Your task to perform on an android device: set default search engine in the chrome app Image 0: 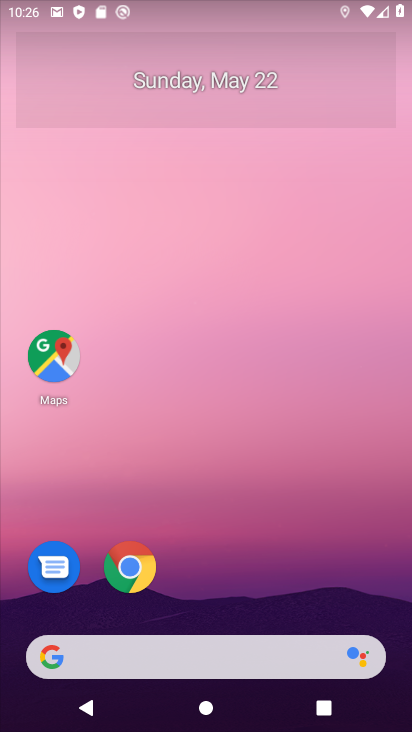
Step 0: drag from (257, 584) to (251, 163)
Your task to perform on an android device: set default search engine in the chrome app Image 1: 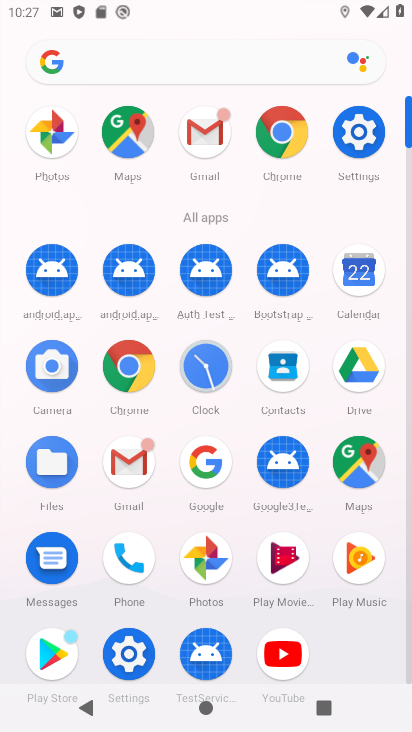
Step 1: click (131, 375)
Your task to perform on an android device: set default search engine in the chrome app Image 2: 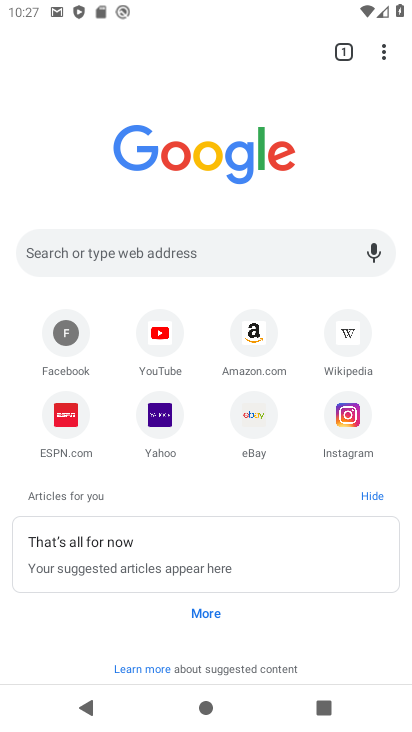
Step 2: drag from (385, 55) to (191, 432)
Your task to perform on an android device: set default search engine in the chrome app Image 3: 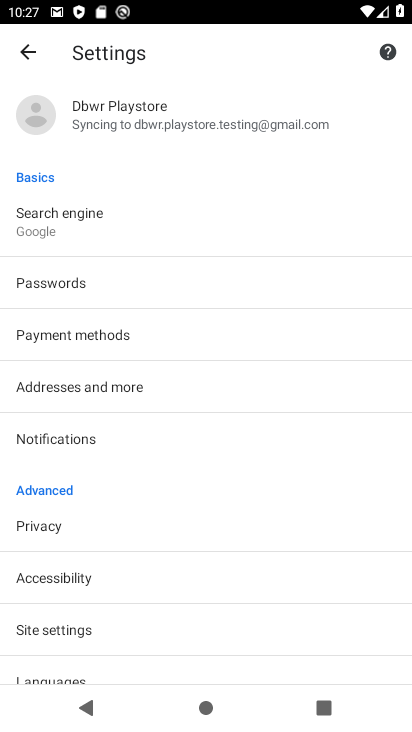
Step 3: drag from (203, 704) to (212, 384)
Your task to perform on an android device: set default search engine in the chrome app Image 4: 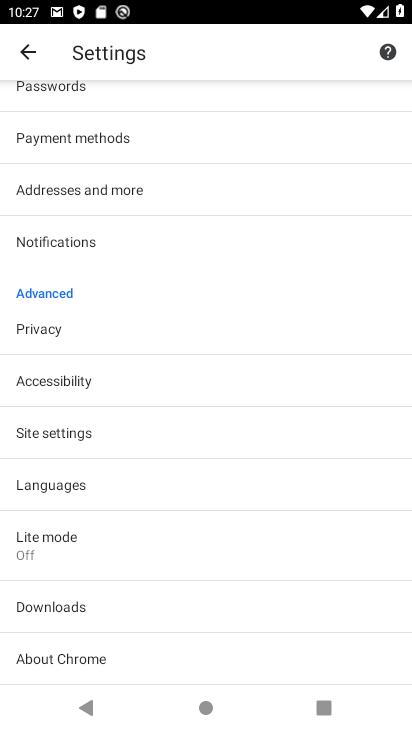
Step 4: drag from (116, 178) to (126, 592)
Your task to perform on an android device: set default search engine in the chrome app Image 5: 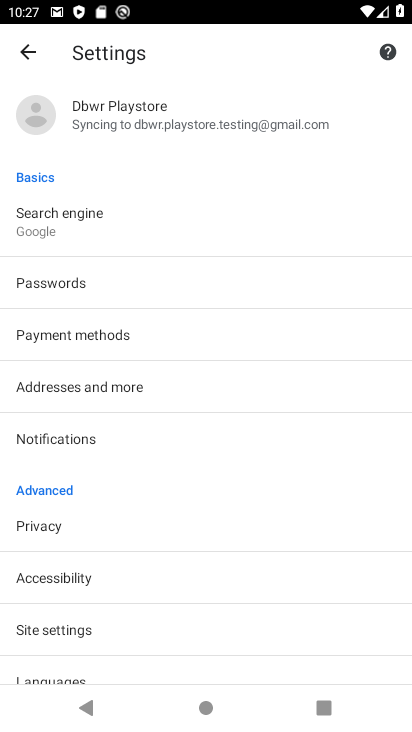
Step 5: click (60, 193)
Your task to perform on an android device: set default search engine in the chrome app Image 6: 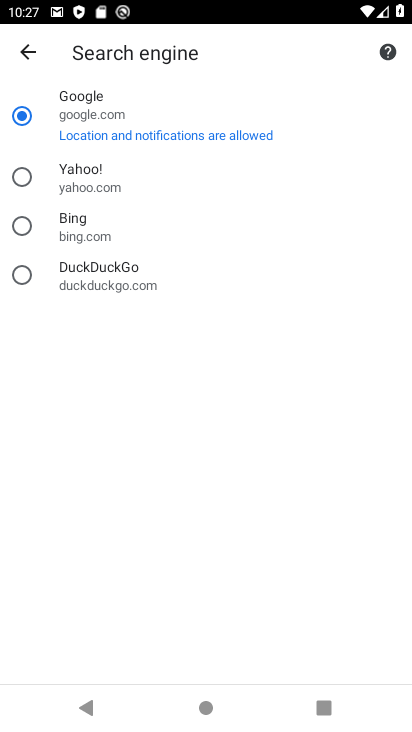
Step 6: click (86, 168)
Your task to perform on an android device: set default search engine in the chrome app Image 7: 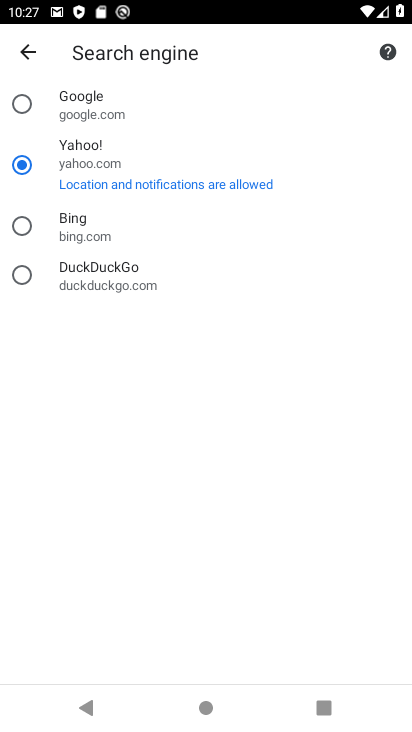
Step 7: task complete